Your task to perform on an android device: turn notification dots on Image 0: 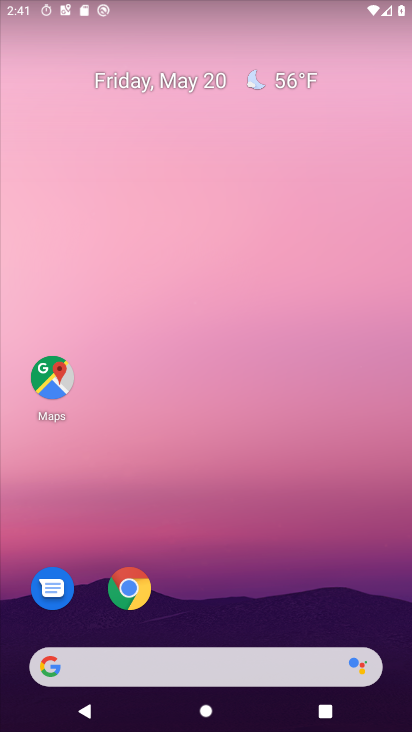
Step 0: press home button
Your task to perform on an android device: turn notification dots on Image 1: 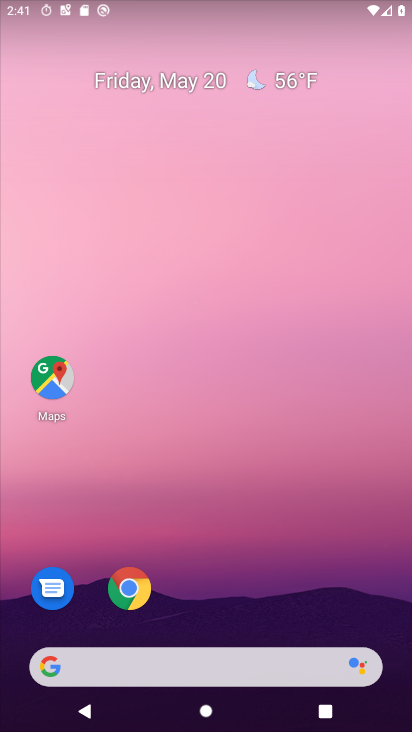
Step 1: drag from (57, 642) to (284, 175)
Your task to perform on an android device: turn notification dots on Image 2: 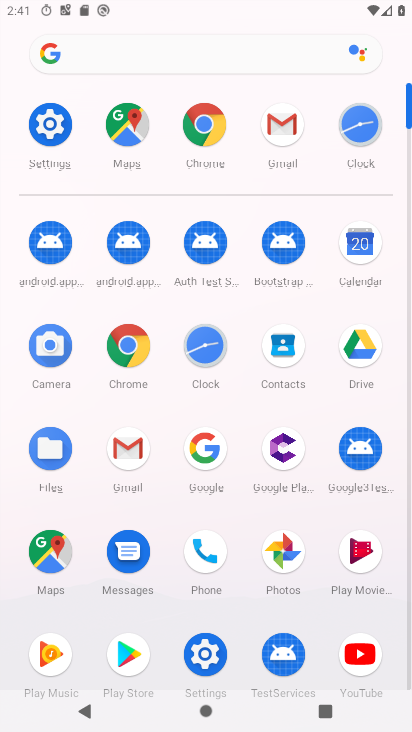
Step 2: click (201, 641)
Your task to perform on an android device: turn notification dots on Image 3: 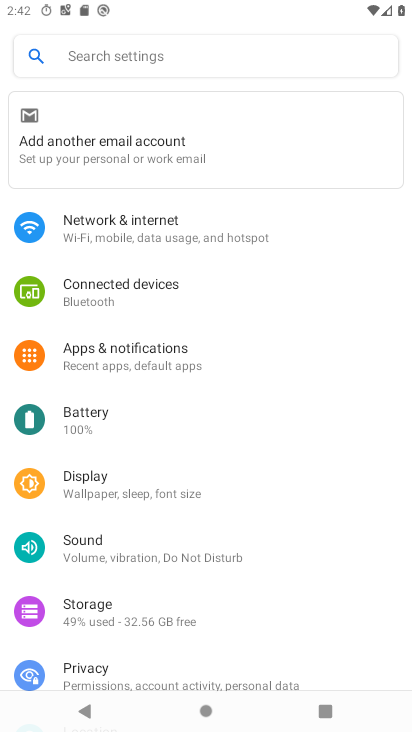
Step 3: click (118, 354)
Your task to perform on an android device: turn notification dots on Image 4: 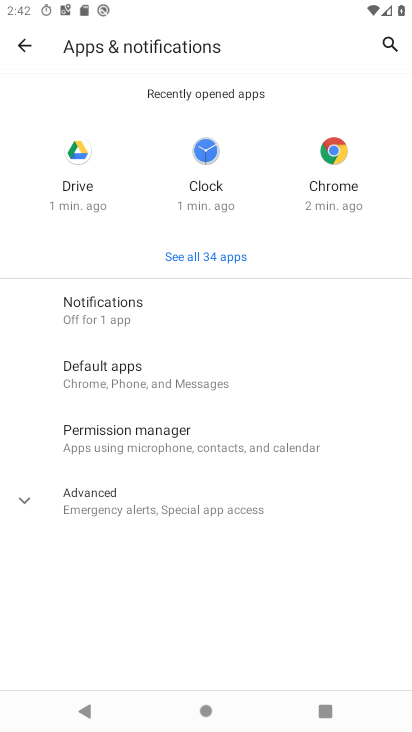
Step 4: click (126, 318)
Your task to perform on an android device: turn notification dots on Image 5: 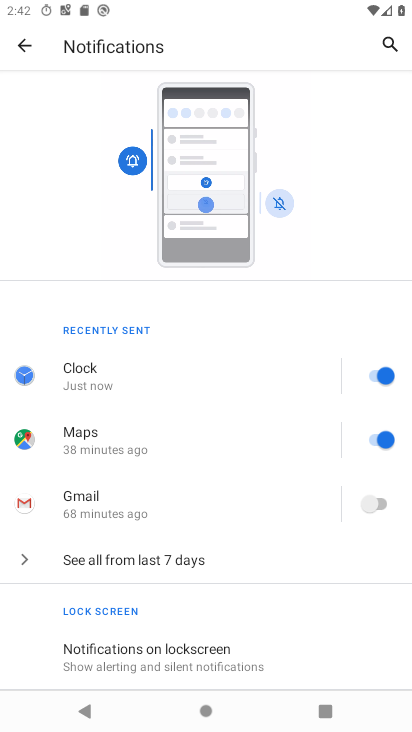
Step 5: drag from (5, 559) to (191, 182)
Your task to perform on an android device: turn notification dots on Image 6: 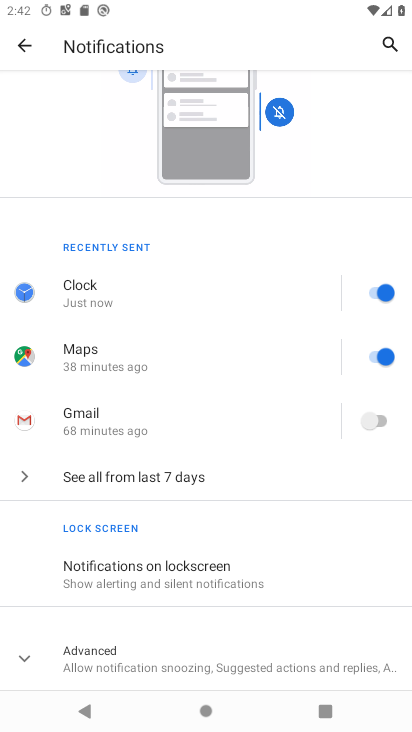
Step 6: click (155, 665)
Your task to perform on an android device: turn notification dots on Image 7: 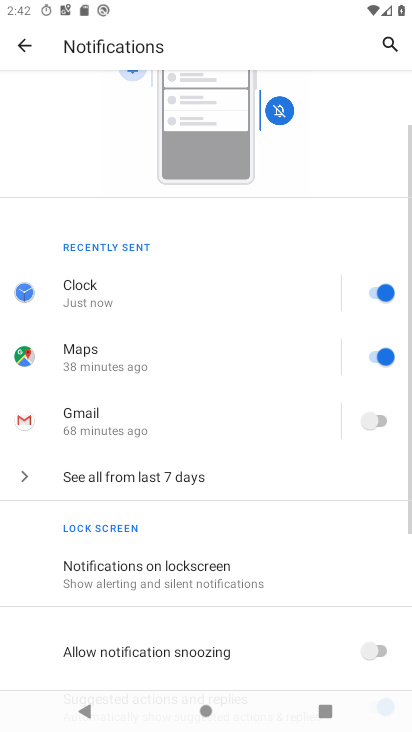
Step 7: task complete